Your task to perform on an android device: Go to Google maps Image 0: 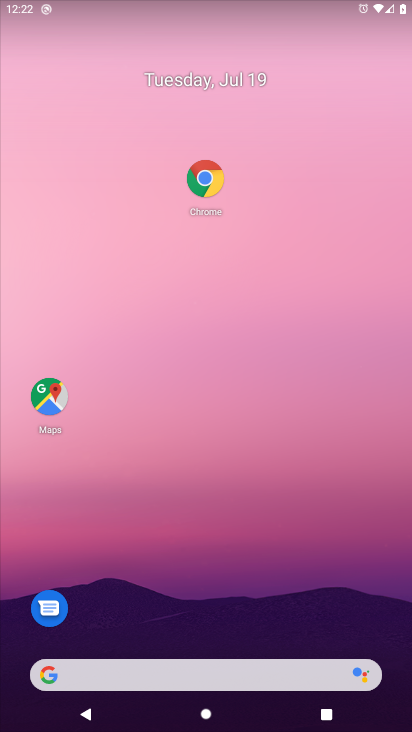
Step 0: click (44, 415)
Your task to perform on an android device: Go to Google maps Image 1: 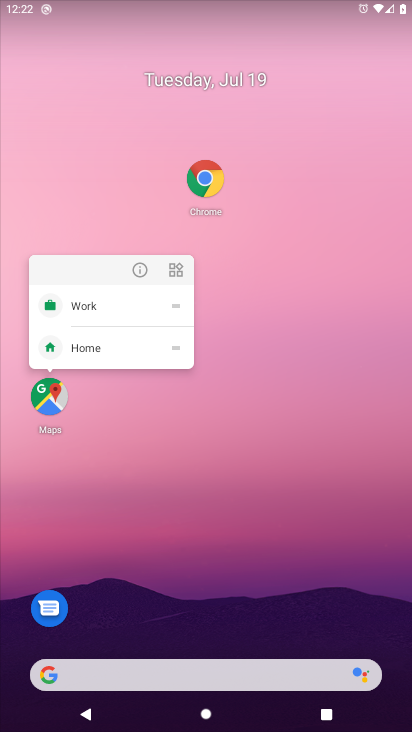
Step 1: click (46, 397)
Your task to perform on an android device: Go to Google maps Image 2: 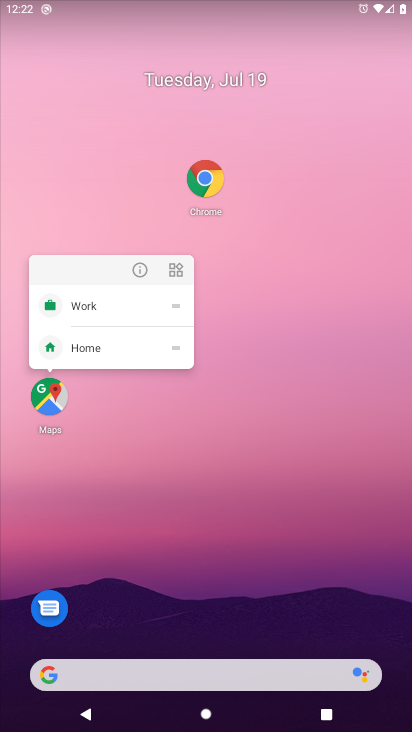
Step 2: click (47, 404)
Your task to perform on an android device: Go to Google maps Image 3: 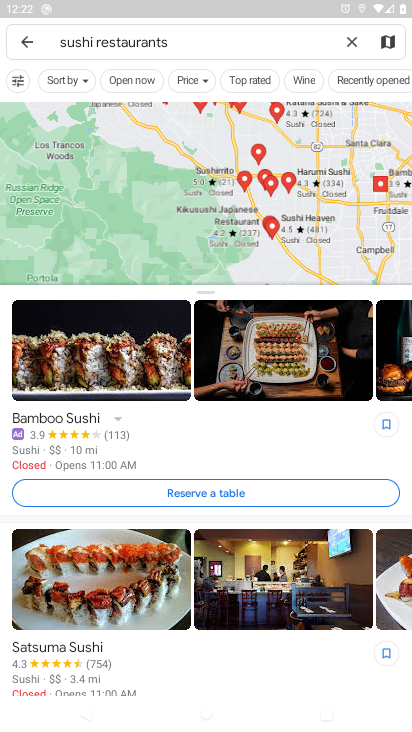
Step 3: click (347, 38)
Your task to perform on an android device: Go to Google maps Image 4: 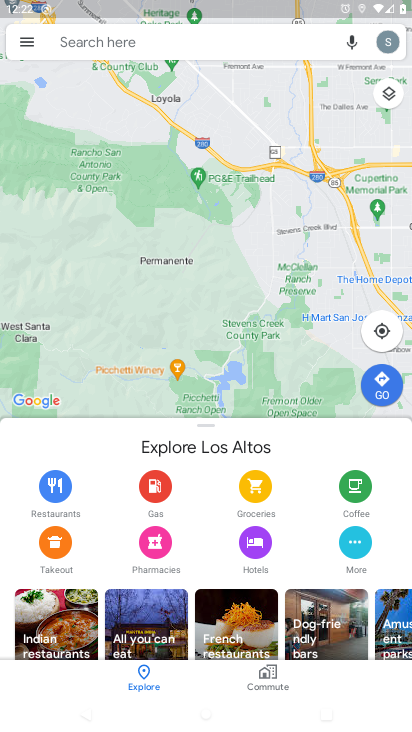
Step 4: task complete